Your task to perform on an android device: turn on showing notifications on the lock screen Image 0: 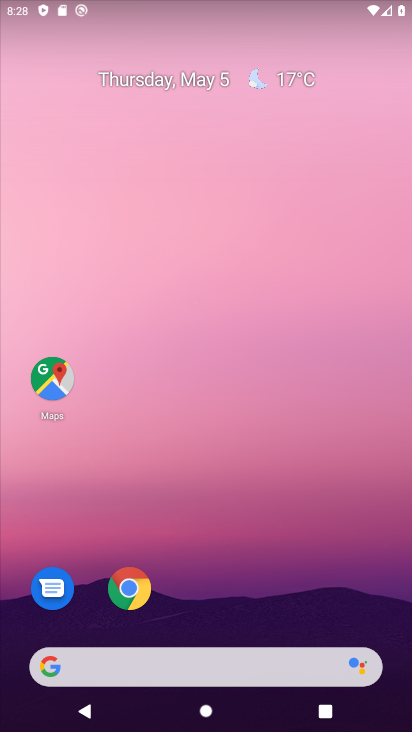
Step 0: drag from (236, 622) to (246, 269)
Your task to perform on an android device: turn on showing notifications on the lock screen Image 1: 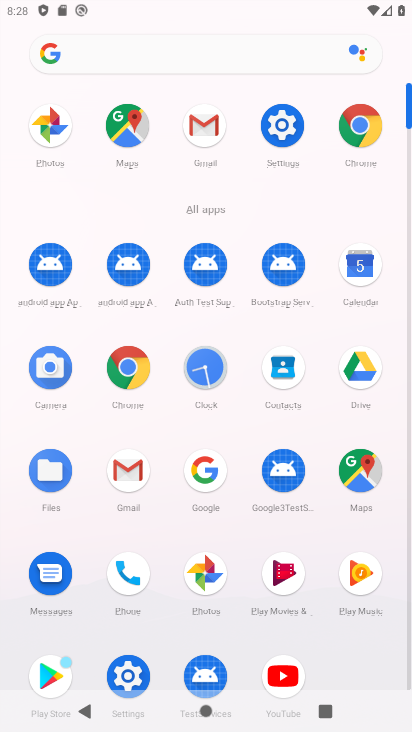
Step 1: click (276, 125)
Your task to perform on an android device: turn on showing notifications on the lock screen Image 2: 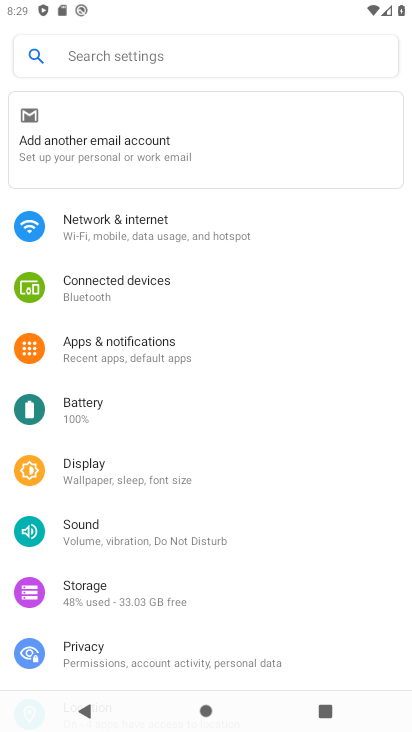
Step 2: click (134, 354)
Your task to perform on an android device: turn on showing notifications on the lock screen Image 3: 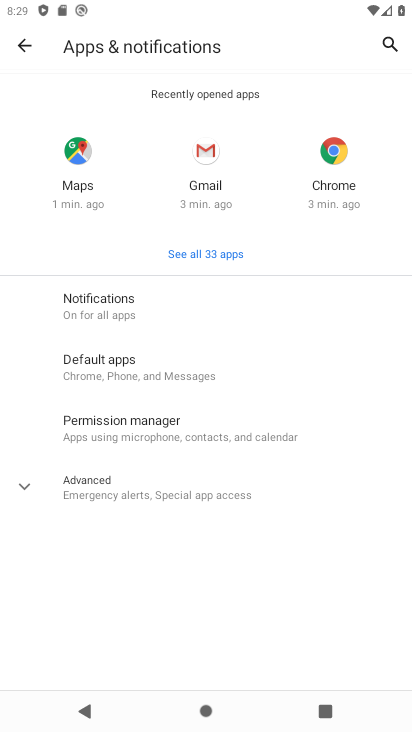
Step 3: click (131, 311)
Your task to perform on an android device: turn on showing notifications on the lock screen Image 4: 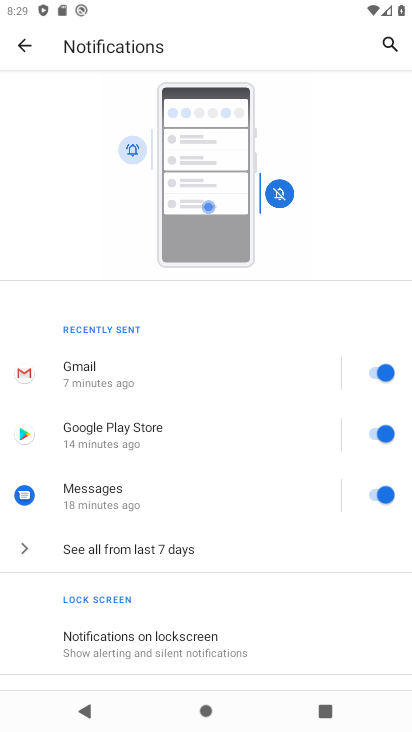
Step 4: click (171, 644)
Your task to perform on an android device: turn on showing notifications on the lock screen Image 5: 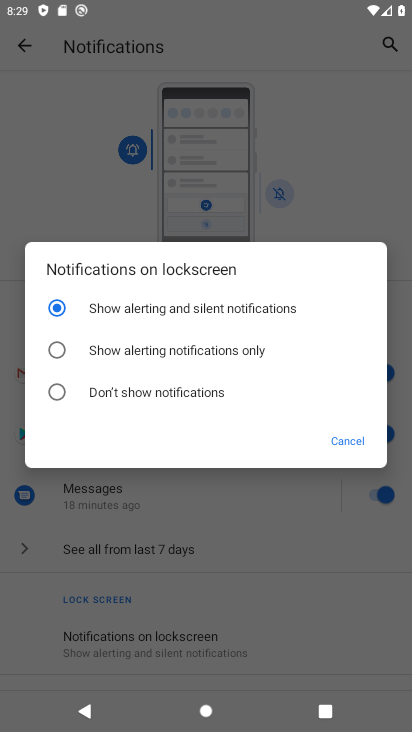
Step 5: click (145, 353)
Your task to perform on an android device: turn on showing notifications on the lock screen Image 6: 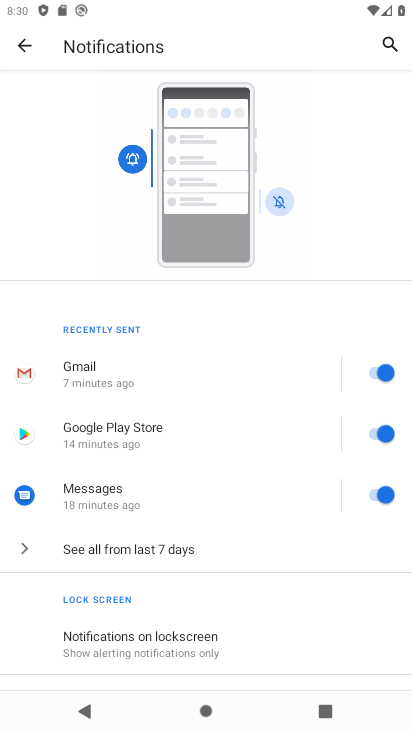
Step 6: task complete